Your task to perform on an android device: toggle wifi Image 0: 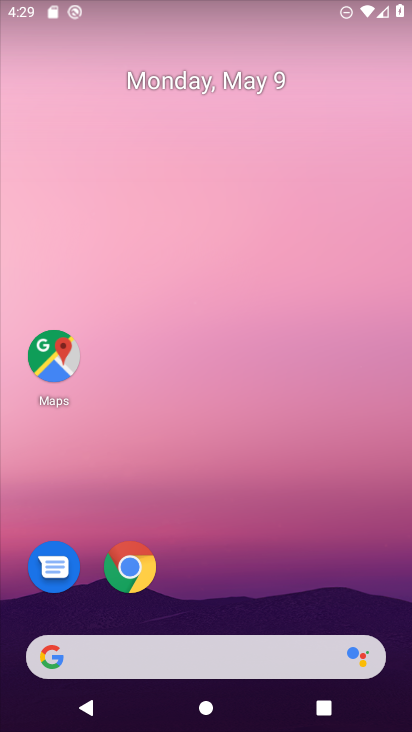
Step 0: drag from (240, 595) to (258, 132)
Your task to perform on an android device: toggle wifi Image 1: 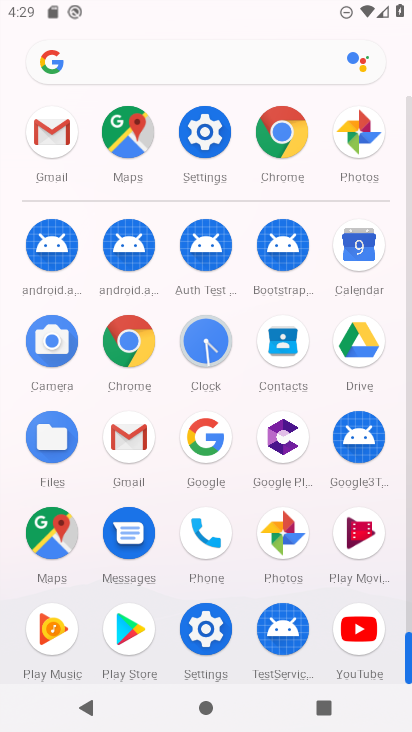
Step 1: click (207, 124)
Your task to perform on an android device: toggle wifi Image 2: 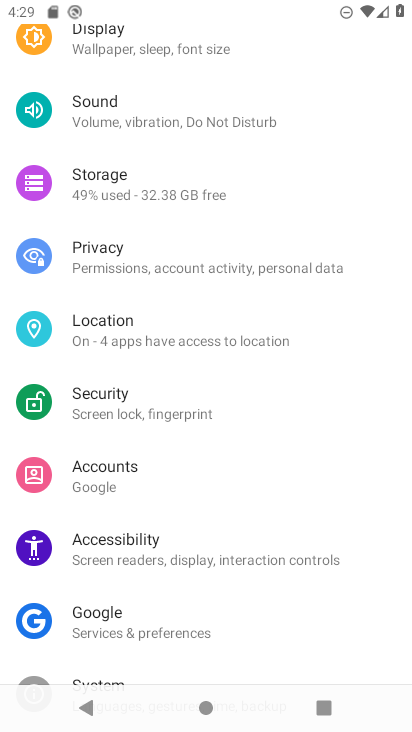
Step 2: drag from (251, 217) to (242, 605)
Your task to perform on an android device: toggle wifi Image 3: 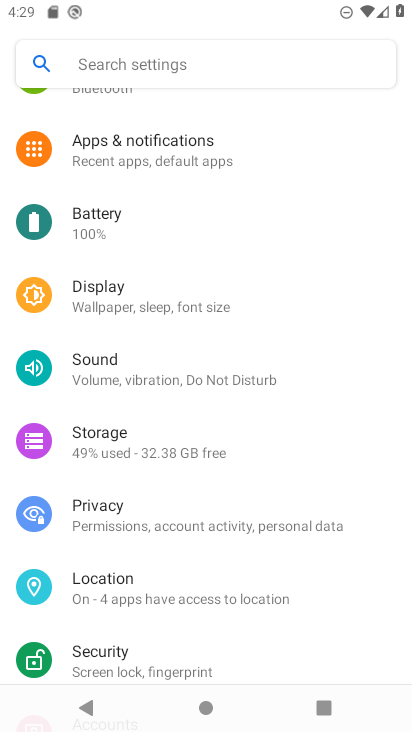
Step 3: drag from (196, 295) to (195, 731)
Your task to perform on an android device: toggle wifi Image 4: 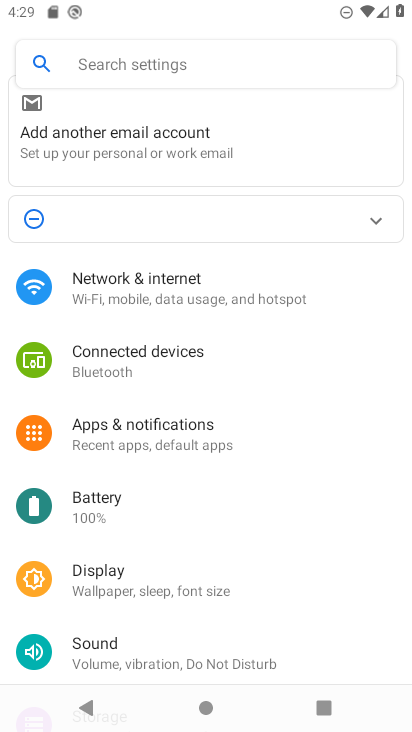
Step 4: click (171, 294)
Your task to perform on an android device: toggle wifi Image 5: 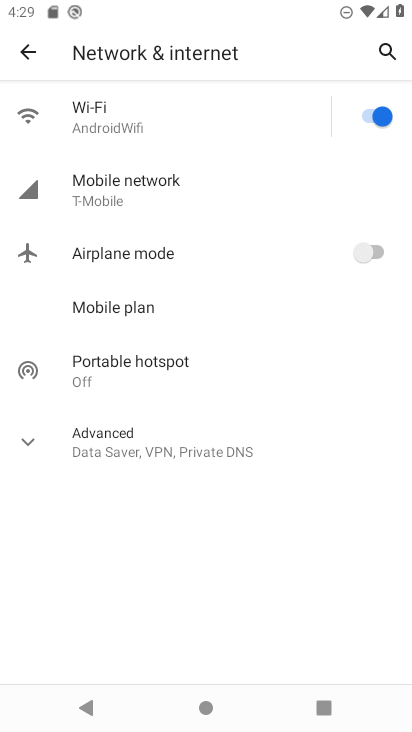
Step 5: click (370, 118)
Your task to perform on an android device: toggle wifi Image 6: 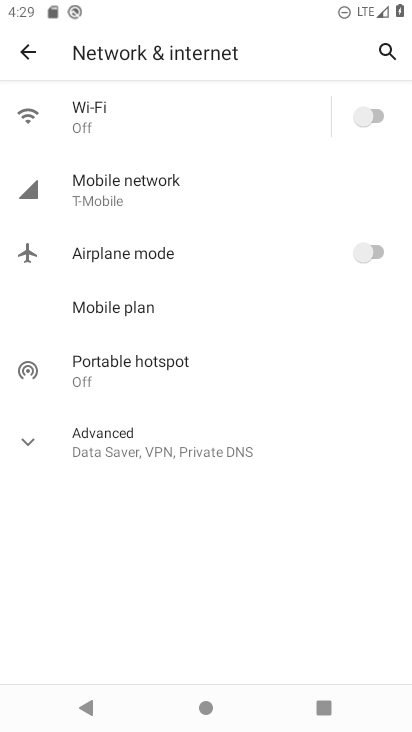
Step 6: task complete